Your task to perform on an android device: change timer sound Image 0: 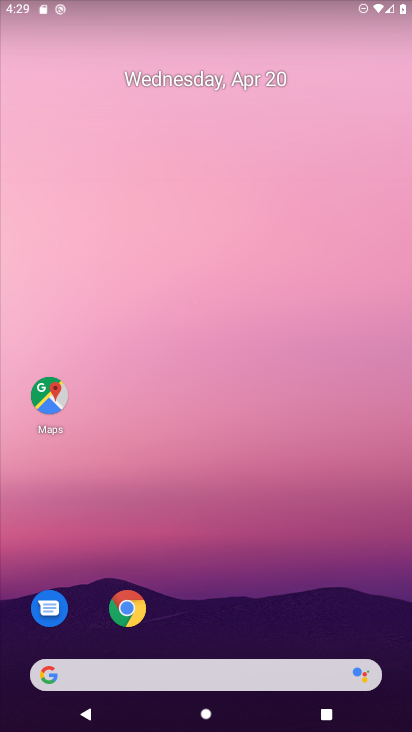
Step 0: drag from (342, 627) to (367, 92)
Your task to perform on an android device: change timer sound Image 1: 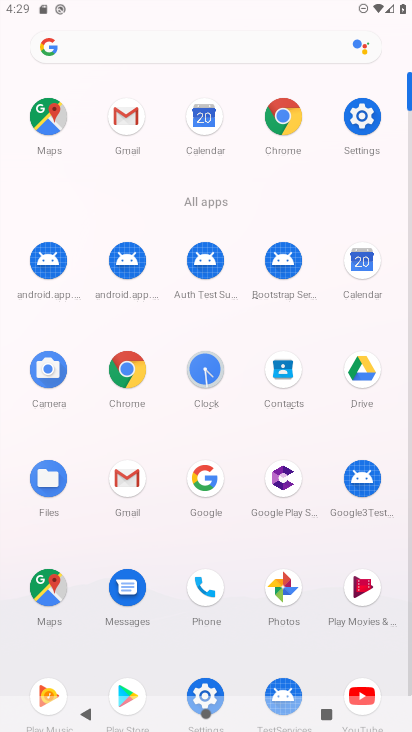
Step 1: click (215, 364)
Your task to perform on an android device: change timer sound Image 2: 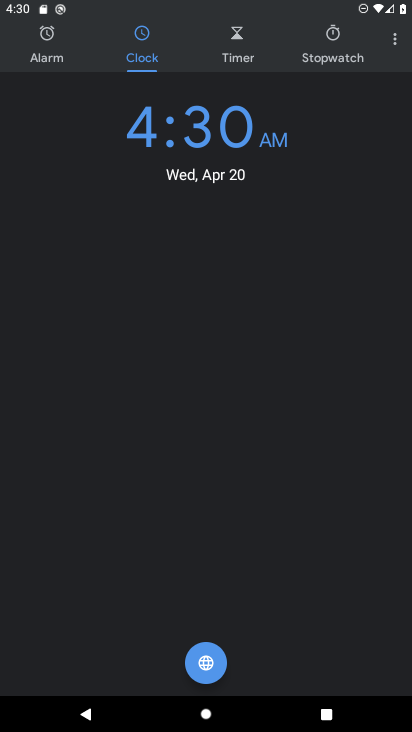
Step 2: click (393, 44)
Your task to perform on an android device: change timer sound Image 3: 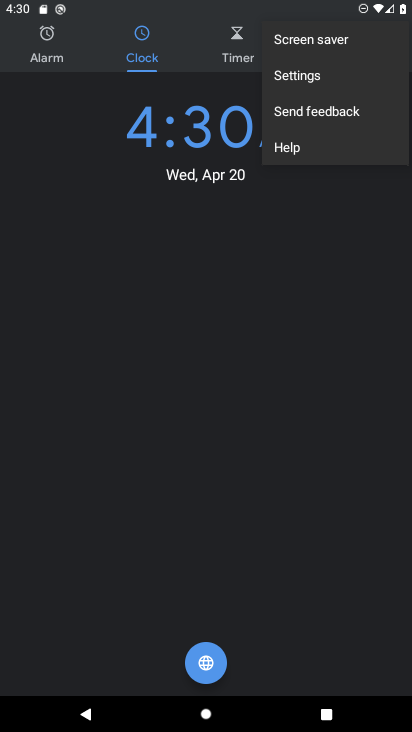
Step 3: click (360, 76)
Your task to perform on an android device: change timer sound Image 4: 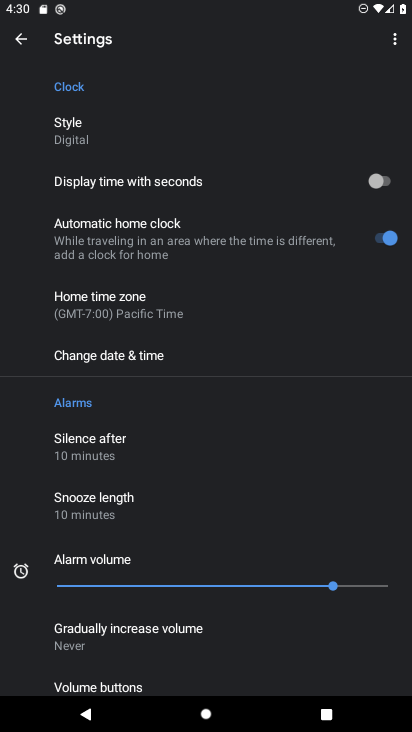
Step 4: drag from (269, 194) to (255, 121)
Your task to perform on an android device: change timer sound Image 5: 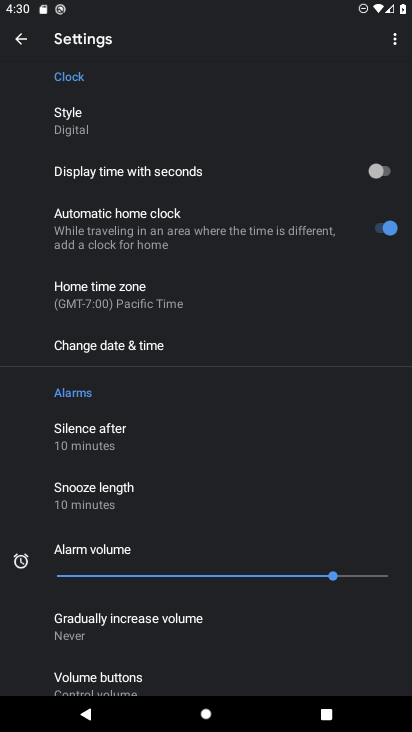
Step 5: drag from (199, 642) to (233, 183)
Your task to perform on an android device: change timer sound Image 6: 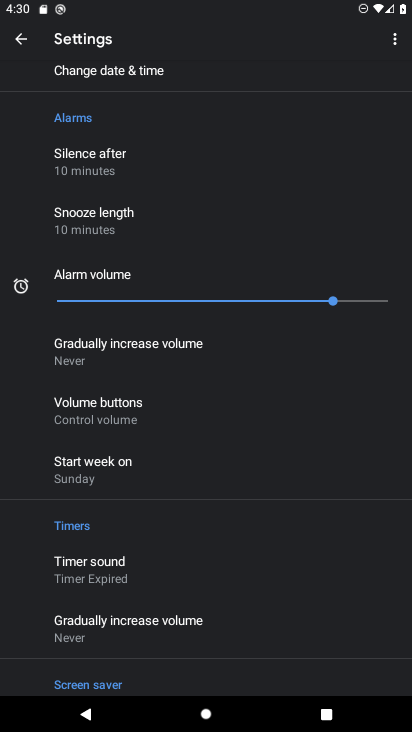
Step 6: drag from (183, 671) to (269, 278)
Your task to perform on an android device: change timer sound Image 7: 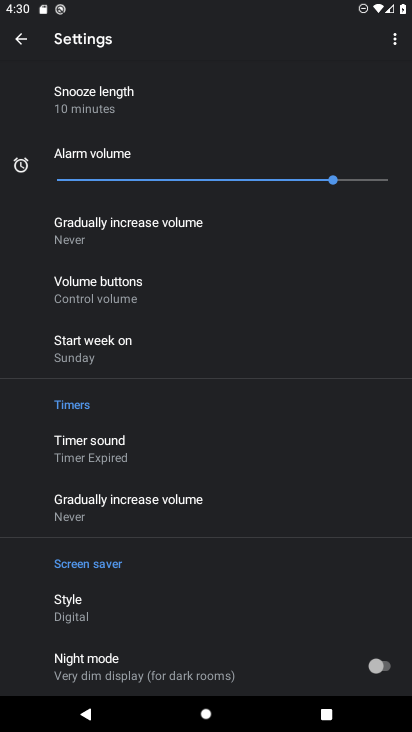
Step 7: click (234, 453)
Your task to perform on an android device: change timer sound Image 8: 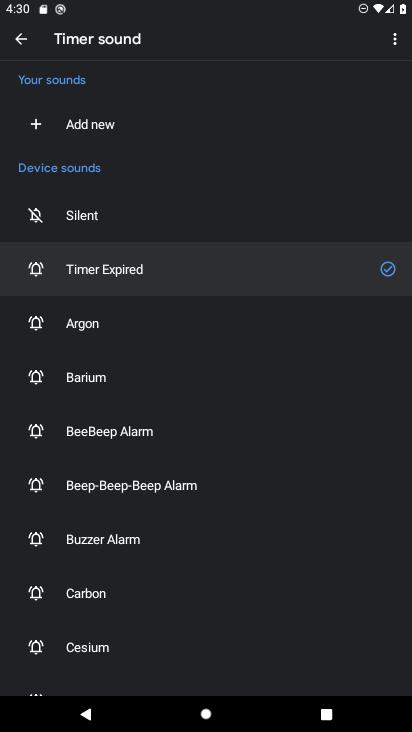
Step 8: click (217, 445)
Your task to perform on an android device: change timer sound Image 9: 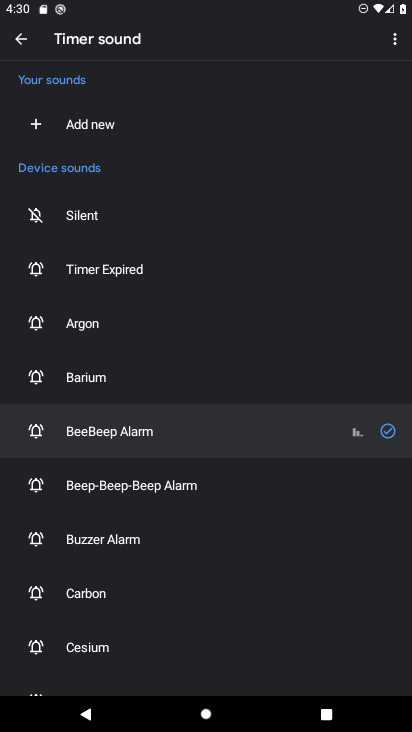
Step 9: task complete